Your task to perform on an android device: manage bookmarks in the chrome app Image 0: 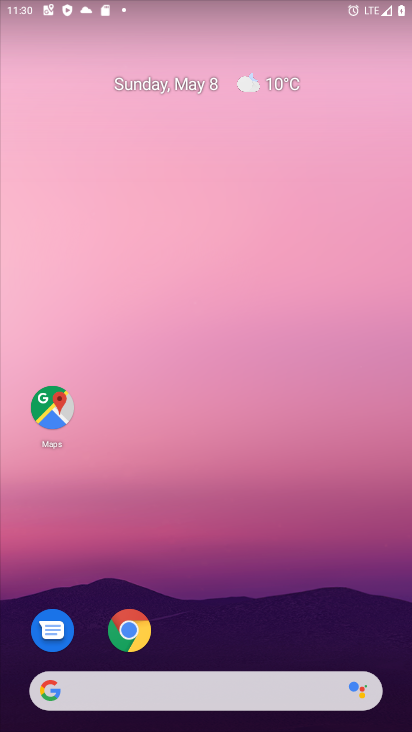
Step 0: drag from (347, 622) to (207, 77)
Your task to perform on an android device: manage bookmarks in the chrome app Image 1: 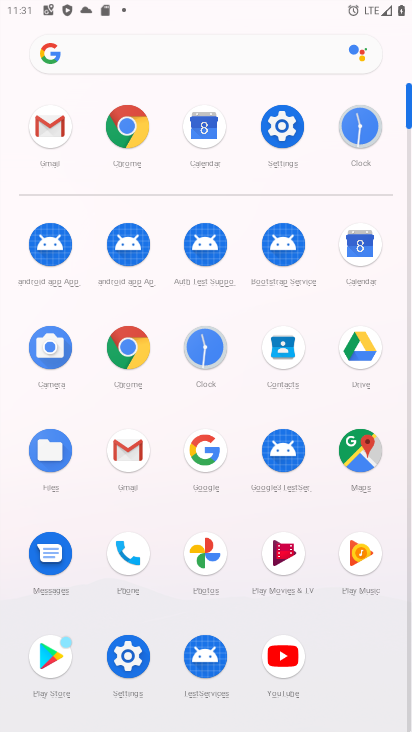
Step 1: click (129, 368)
Your task to perform on an android device: manage bookmarks in the chrome app Image 2: 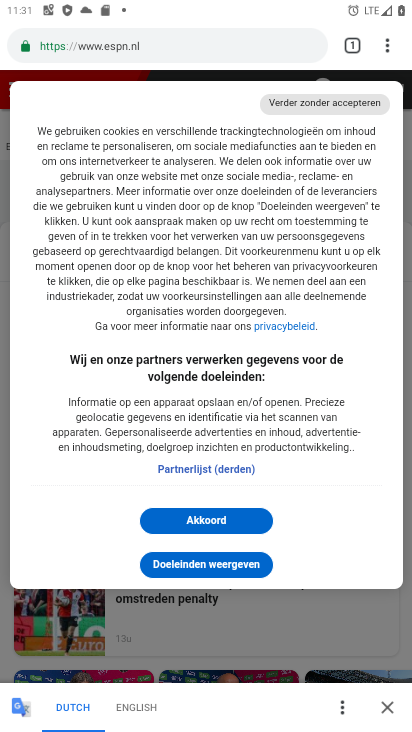
Step 2: task complete